Your task to perform on an android device: open chrome privacy settings Image 0: 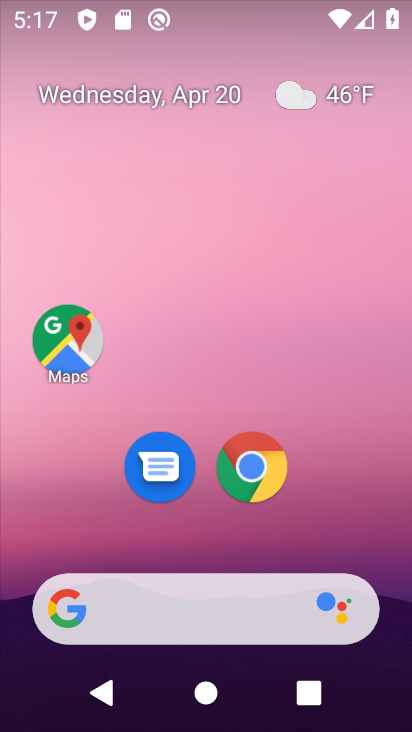
Step 0: click (268, 454)
Your task to perform on an android device: open chrome privacy settings Image 1: 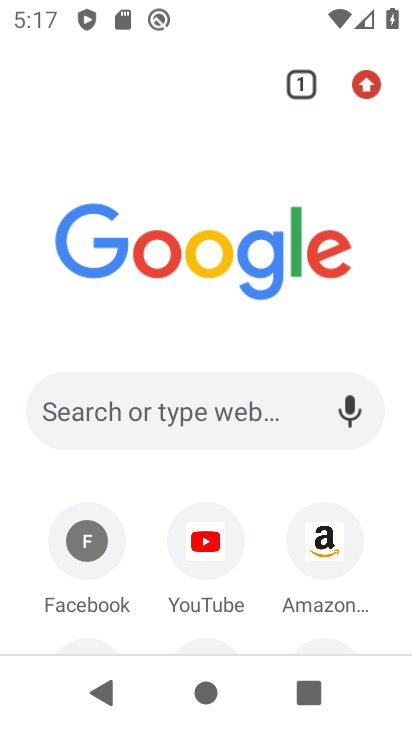
Step 1: click (369, 89)
Your task to perform on an android device: open chrome privacy settings Image 2: 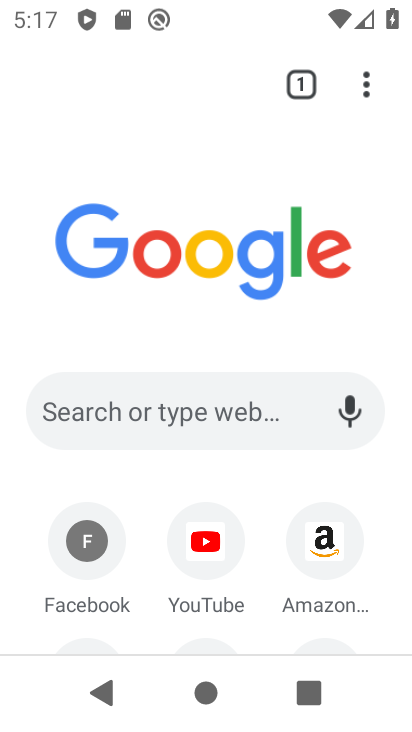
Step 2: click (368, 93)
Your task to perform on an android device: open chrome privacy settings Image 3: 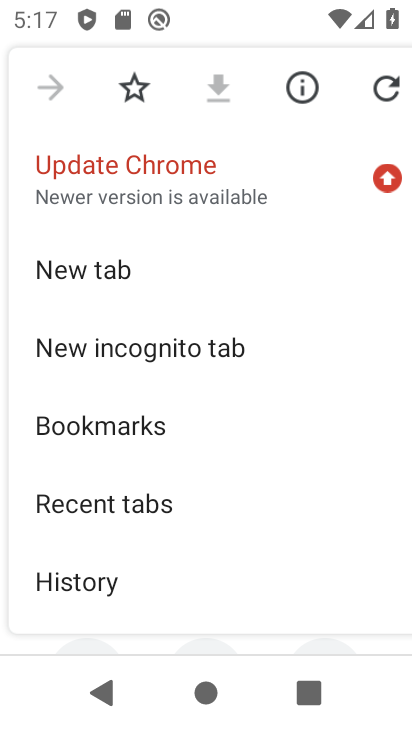
Step 3: drag from (109, 564) to (133, 137)
Your task to perform on an android device: open chrome privacy settings Image 4: 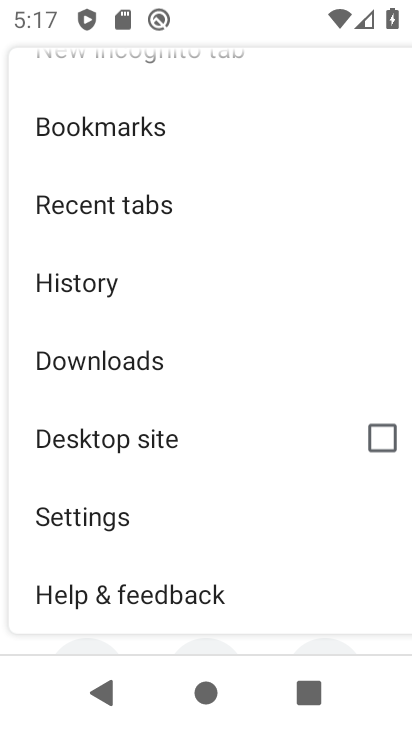
Step 4: drag from (90, 466) to (129, 129)
Your task to perform on an android device: open chrome privacy settings Image 5: 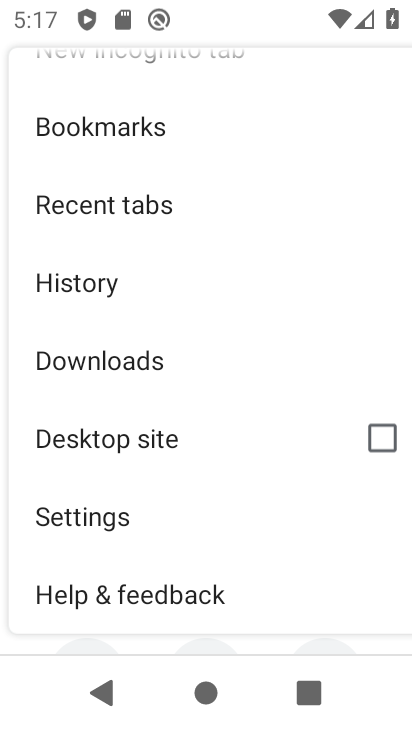
Step 5: click (109, 518)
Your task to perform on an android device: open chrome privacy settings Image 6: 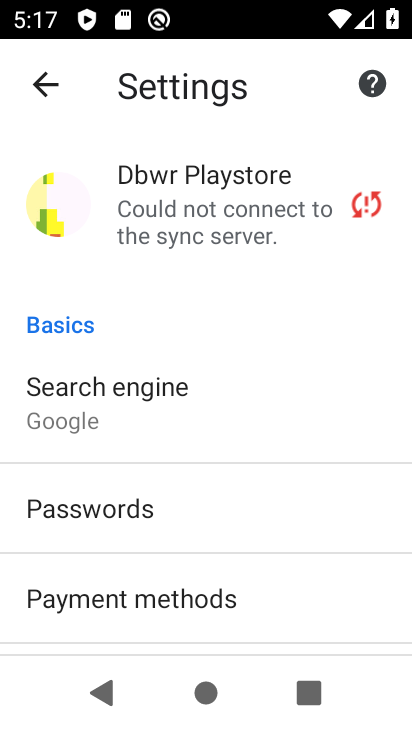
Step 6: drag from (100, 587) to (139, 287)
Your task to perform on an android device: open chrome privacy settings Image 7: 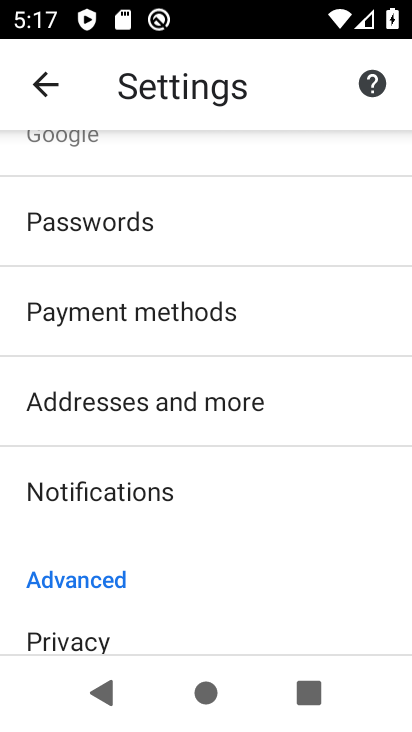
Step 7: drag from (176, 489) to (203, 194)
Your task to perform on an android device: open chrome privacy settings Image 8: 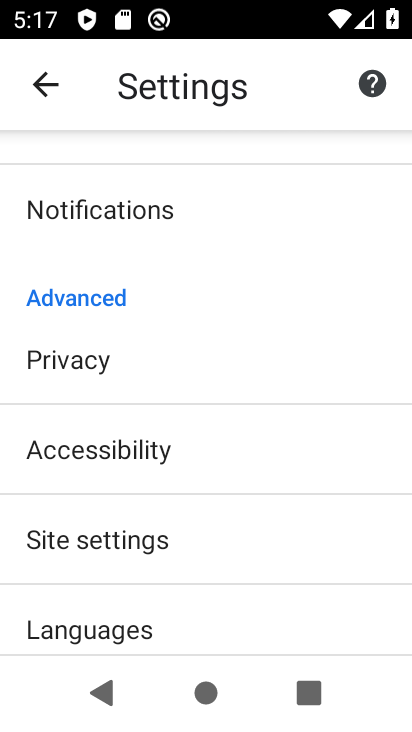
Step 8: drag from (134, 584) to (135, 268)
Your task to perform on an android device: open chrome privacy settings Image 9: 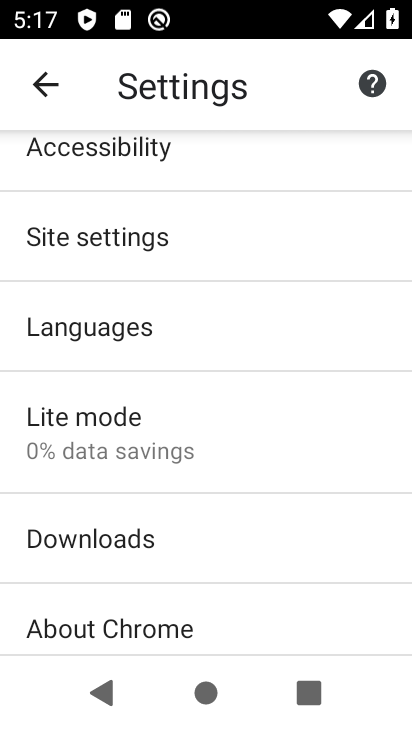
Step 9: drag from (108, 292) to (98, 646)
Your task to perform on an android device: open chrome privacy settings Image 10: 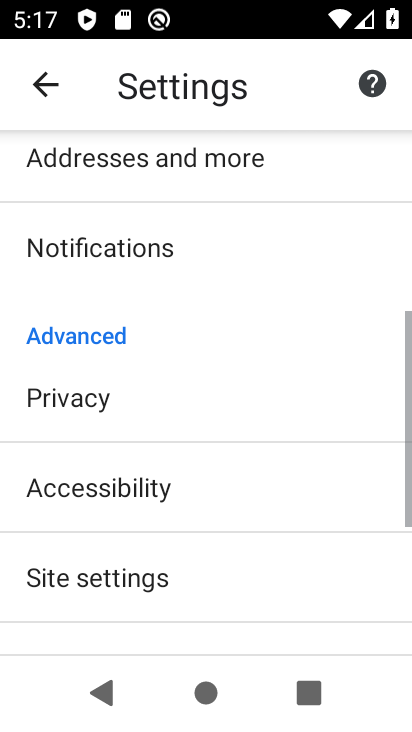
Step 10: click (62, 396)
Your task to perform on an android device: open chrome privacy settings Image 11: 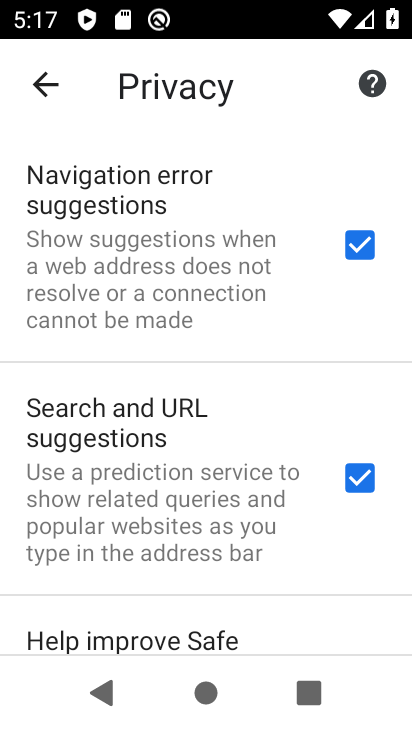
Step 11: task complete